Your task to perform on an android device: Go to ESPN.com Image 0: 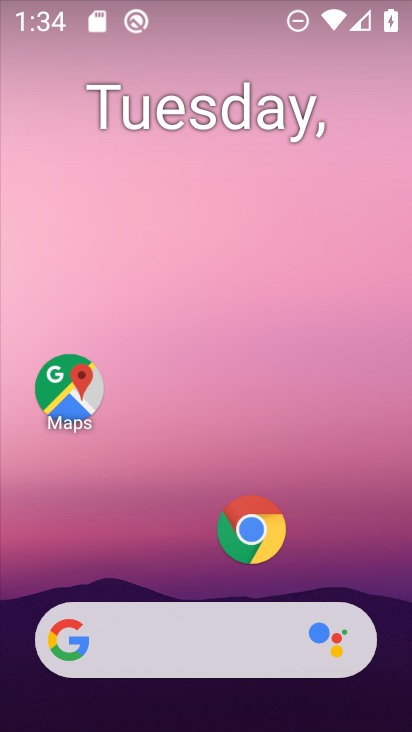
Step 0: click (252, 536)
Your task to perform on an android device: Go to ESPN.com Image 1: 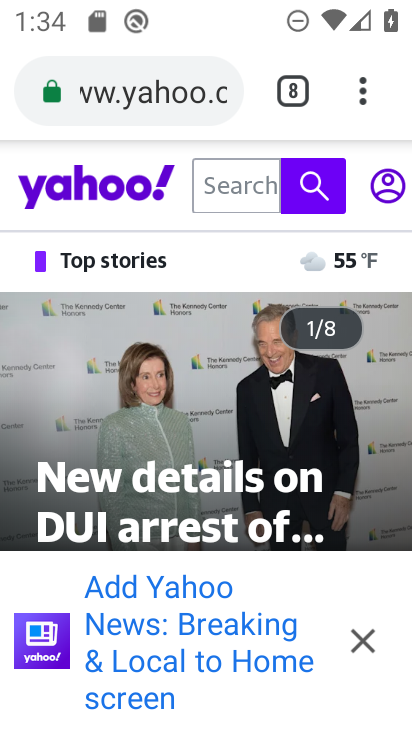
Step 1: click (360, 91)
Your task to perform on an android device: Go to ESPN.com Image 2: 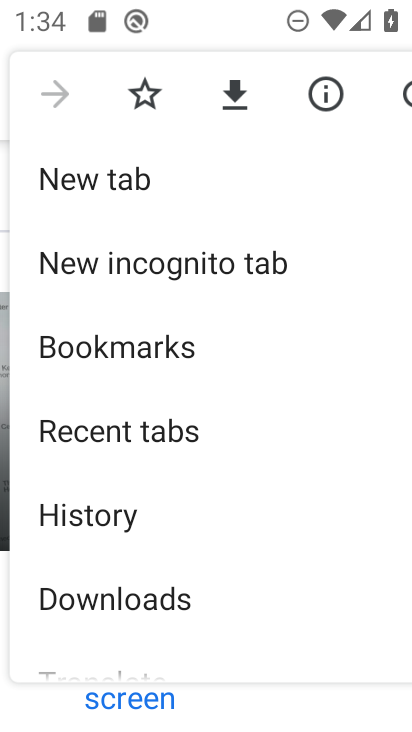
Step 2: click (129, 173)
Your task to perform on an android device: Go to ESPN.com Image 3: 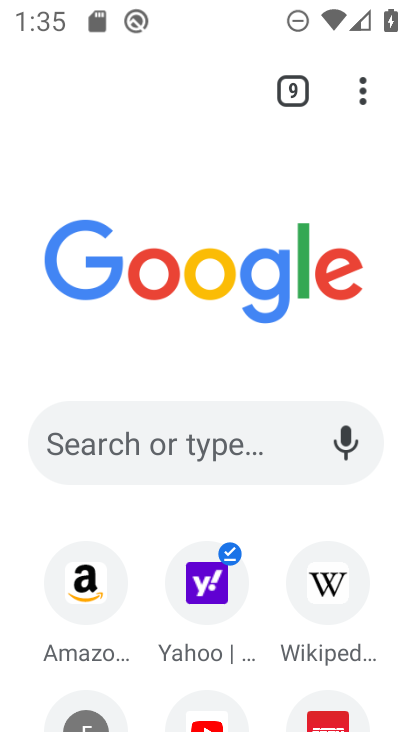
Step 3: click (325, 709)
Your task to perform on an android device: Go to ESPN.com Image 4: 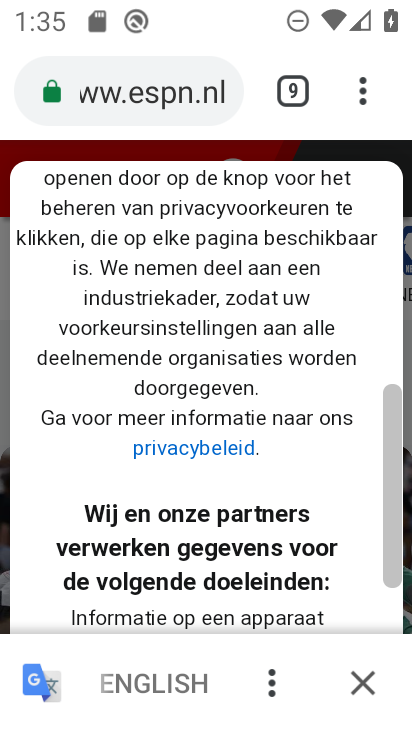
Step 4: task complete